Your task to perform on an android device: Play the new Maroon 5 video on YouTube Image 0: 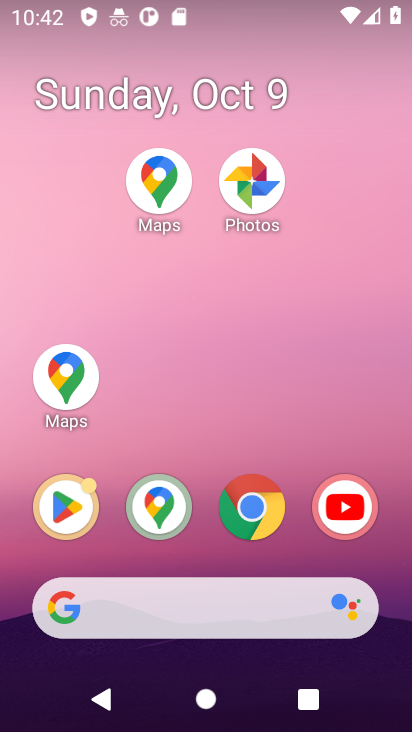
Step 0: drag from (200, 554) to (226, 50)
Your task to perform on an android device: Play the new Maroon 5 video on YouTube Image 1: 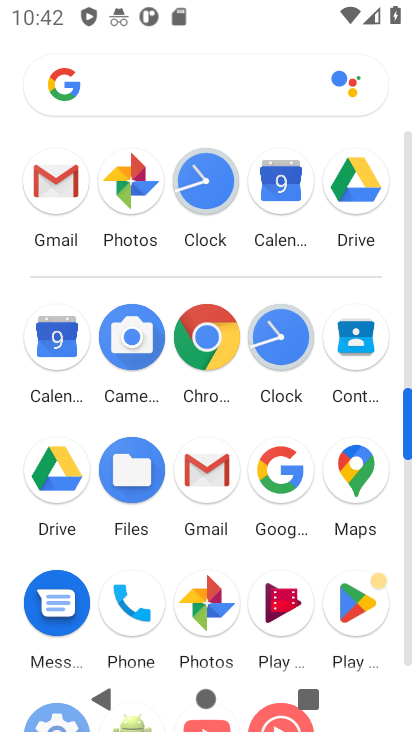
Step 1: drag from (245, 676) to (208, 322)
Your task to perform on an android device: Play the new Maroon 5 video on YouTube Image 2: 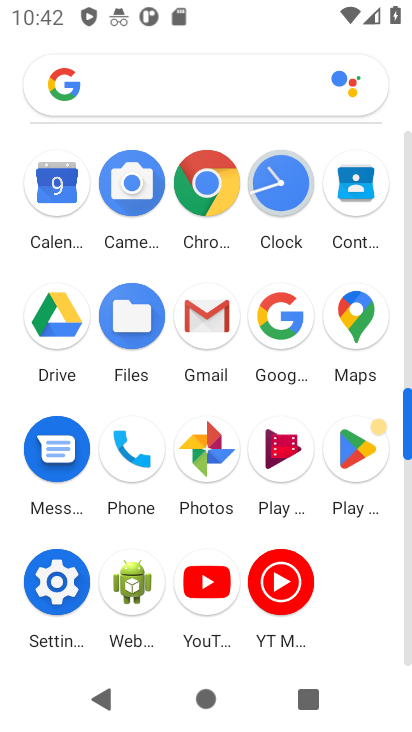
Step 2: click (211, 582)
Your task to perform on an android device: Play the new Maroon 5 video on YouTube Image 3: 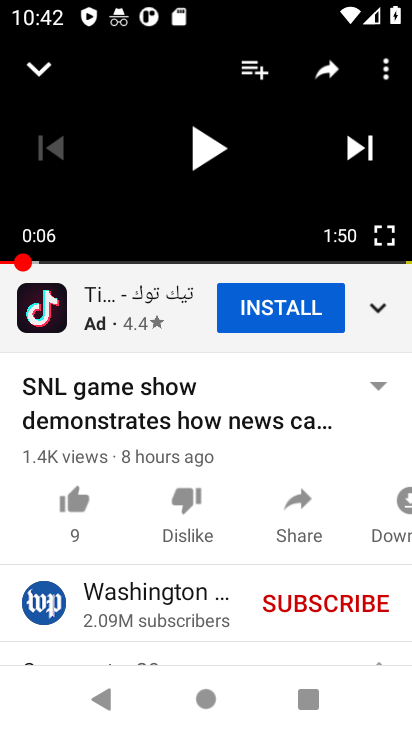
Step 3: drag from (271, 108) to (231, 687)
Your task to perform on an android device: Play the new Maroon 5 video on YouTube Image 4: 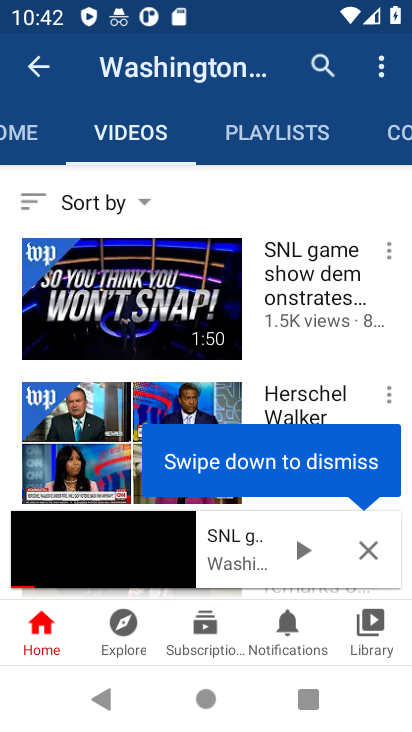
Step 4: click (236, 72)
Your task to perform on an android device: Play the new Maroon 5 video on YouTube Image 5: 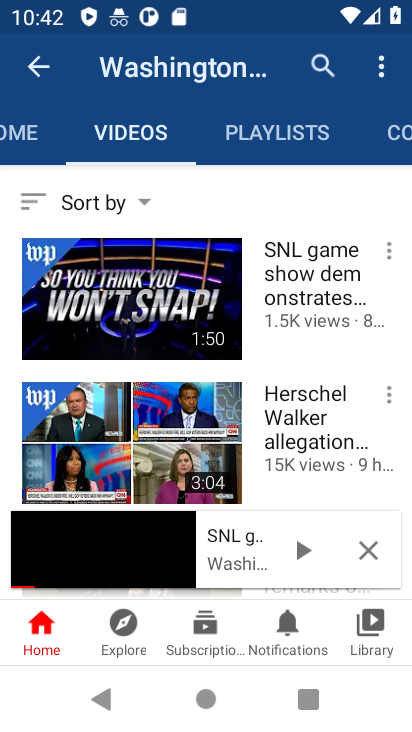
Step 5: click (224, 67)
Your task to perform on an android device: Play the new Maroon 5 video on YouTube Image 6: 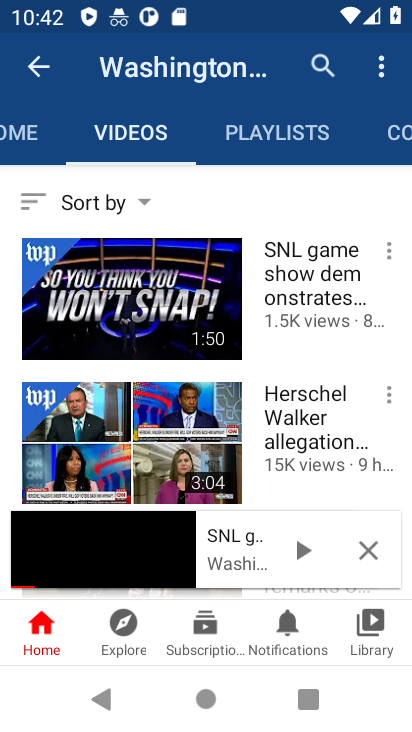
Step 6: click (314, 61)
Your task to perform on an android device: Play the new Maroon 5 video on YouTube Image 7: 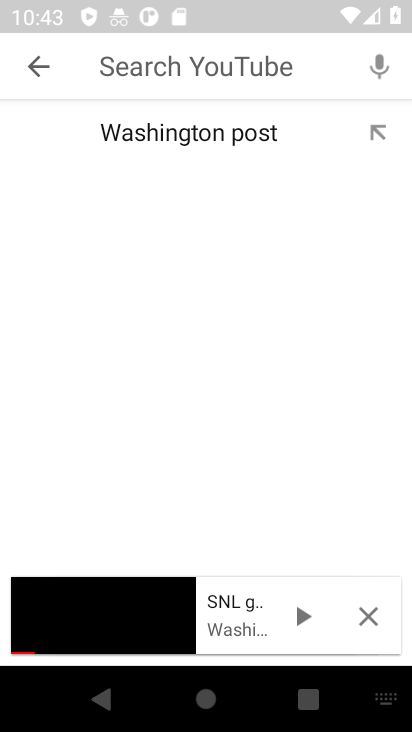
Step 7: type "the new Maroon 5"
Your task to perform on an android device: Play the new Maroon 5 video on YouTube Image 8: 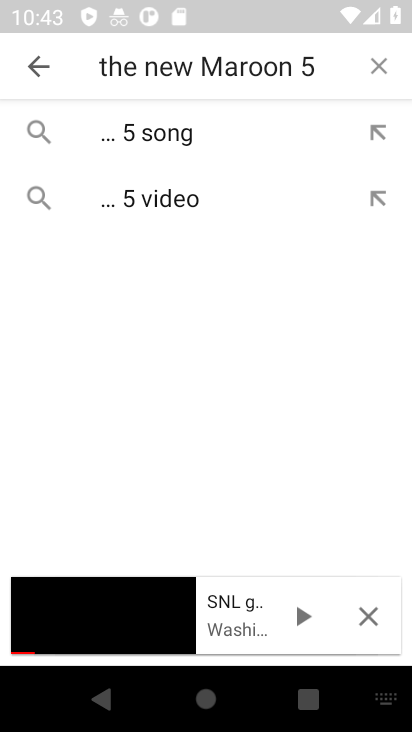
Step 8: press enter
Your task to perform on an android device: Play the new Maroon 5 video on YouTube Image 9: 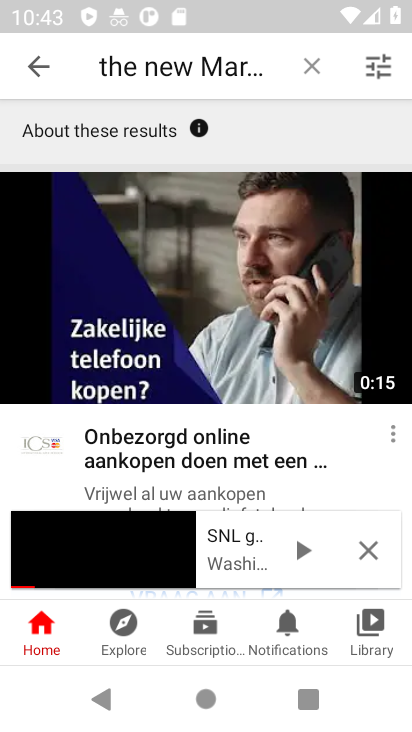
Step 9: click (370, 552)
Your task to perform on an android device: Play the new Maroon 5 video on YouTube Image 10: 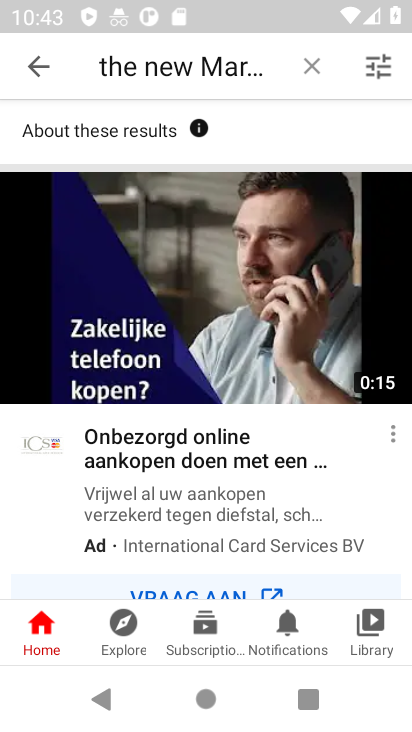
Step 10: drag from (231, 505) to (206, 59)
Your task to perform on an android device: Play the new Maroon 5 video on YouTube Image 11: 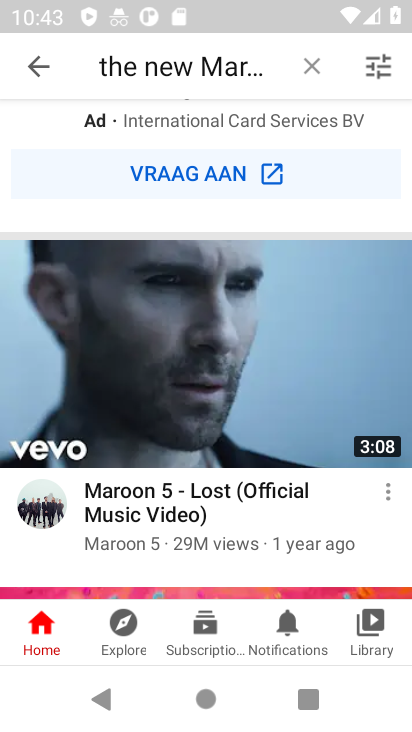
Step 11: click (248, 406)
Your task to perform on an android device: Play the new Maroon 5 video on YouTube Image 12: 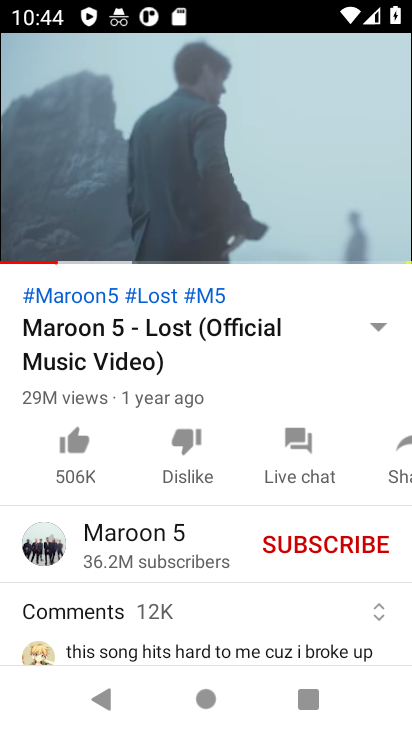
Step 12: task complete